Your task to perform on an android device: See recent photos Image 0: 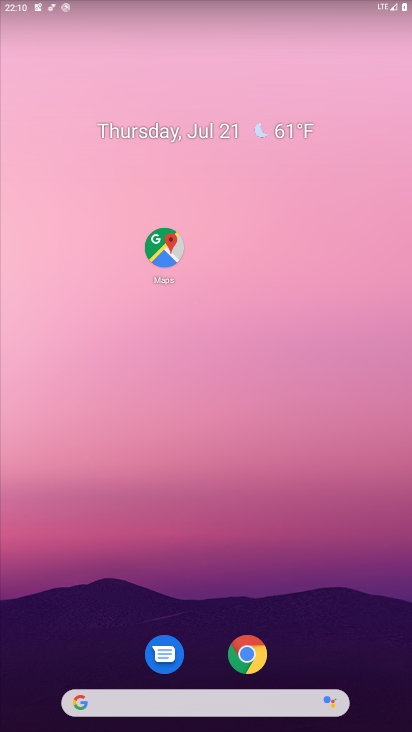
Step 0: drag from (32, 677) to (233, 64)
Your task to perform on an android device: See recent photos Image 1: 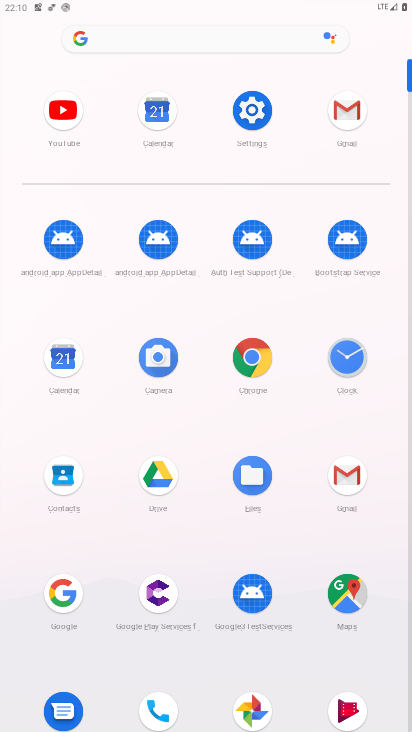
Step 1: click (243, 701)
Your task to perform on an android device: See recent photos Image 2: 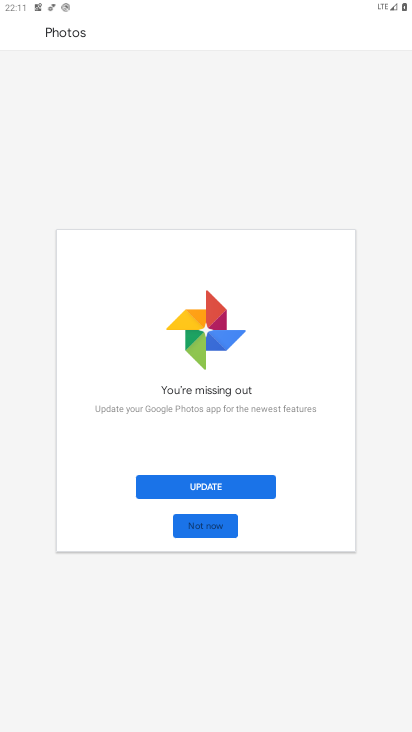
Step 2: click (197, 524)
Your task to perform on an android device: See recent photos Image 3: 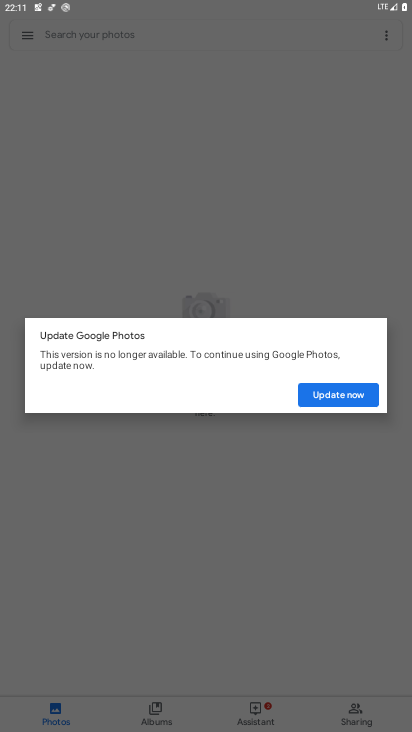
Step 3: click (329, 386)
Your task to perform on an android device: See recent photos Image 4: 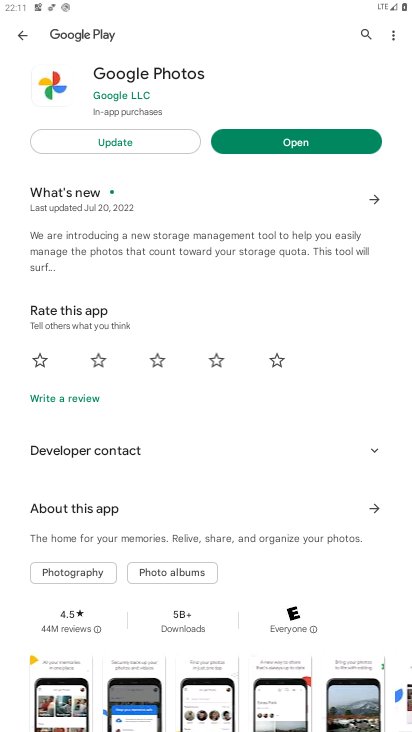
Step 4: click (289, 144)
Your task to perform on an android device: See recent photos Image 5: 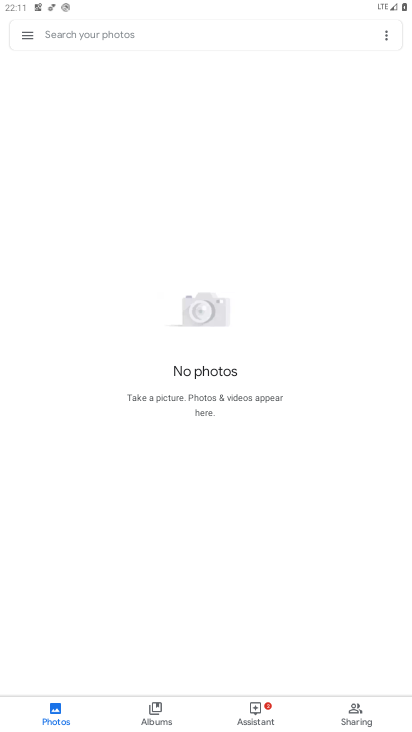
Step 5: task complete